Your task to perform on an android device: open wifi settings Image 0: 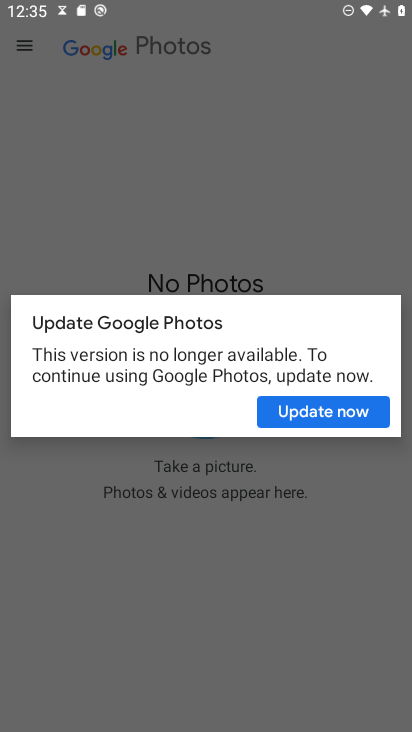
Step 0: click (253, 584)
Your task to perform on an android device: open wifi settings Image 1: 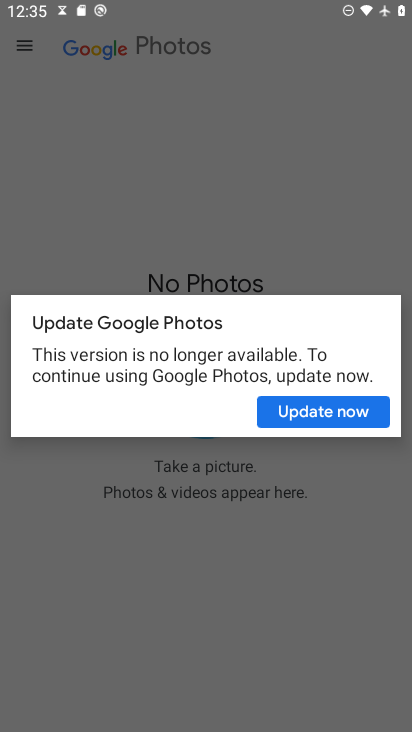
Step 1: press back button
Your task to perform on an android device: open wifi settings Image 2: 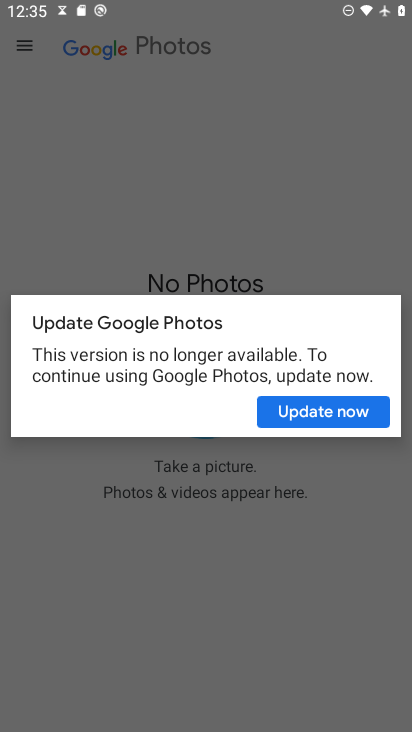
Step 2: press back button
Your task to perform on an android device: open wifi settings Image 3: 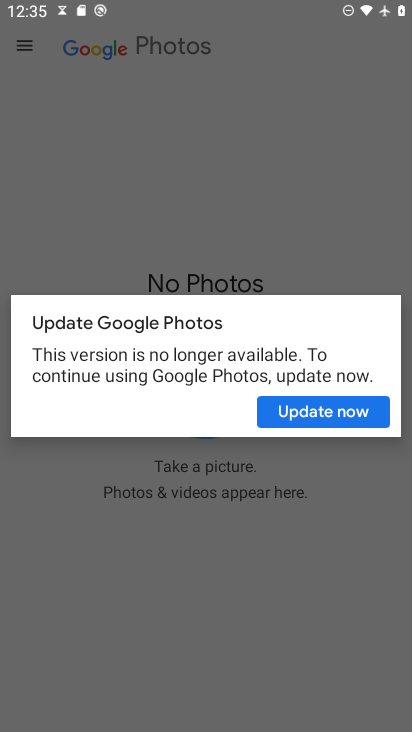
Step 3: press back button
Your task to perform on an android device: open wifi settings Image 4: 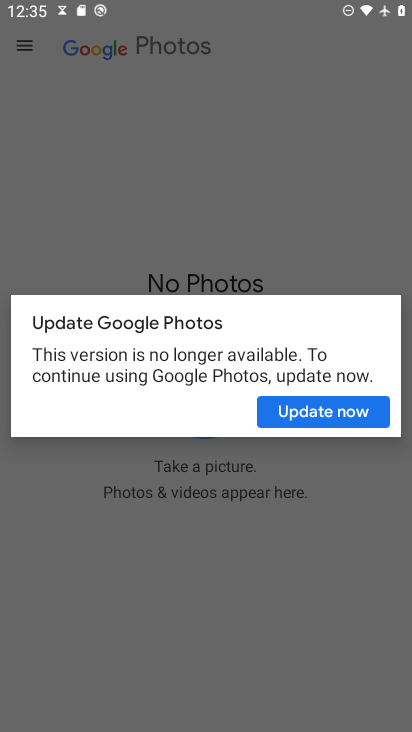
Step 4: press home button
Your task to perform on an android device: open wifi settings Image 5: 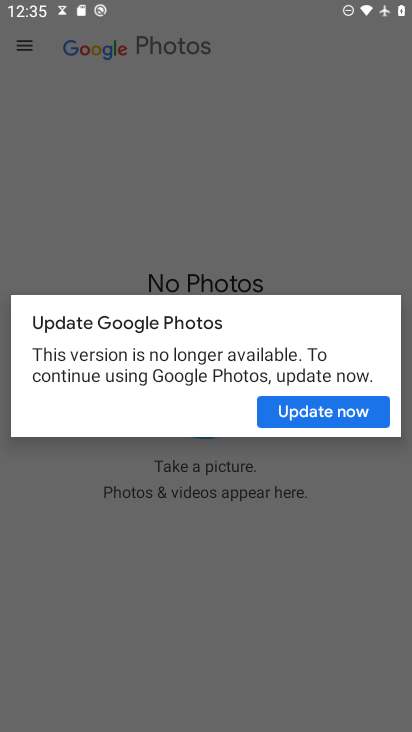
Step 5: press home button
Your task to perform on an android device: open wifi settings Image 6: 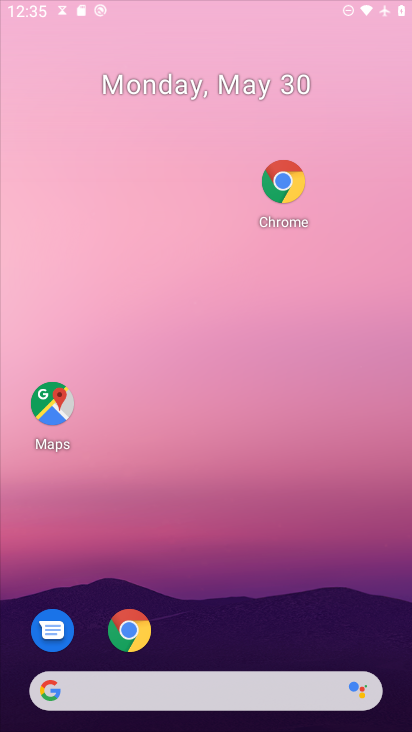
Step 6: press home button
Your task to perform on an android device: open wifi settings Image 7: 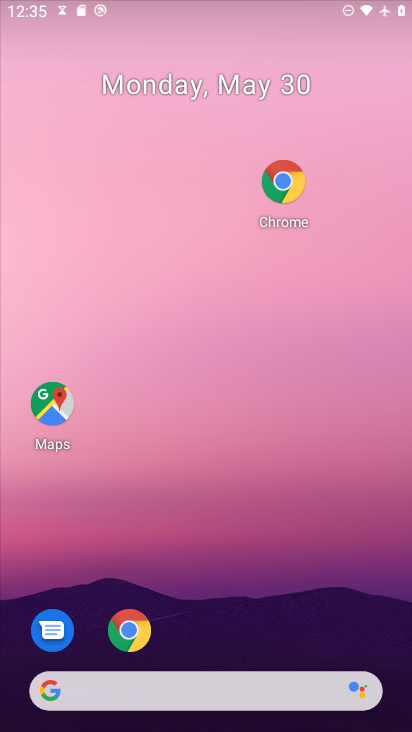
Step 7: press home button
Your task to perform on an android device: open wifi settings Image 8: 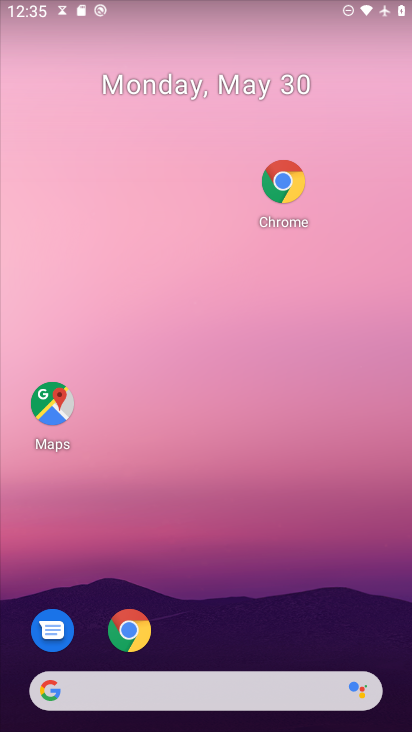
Step 8: drag from (260, 716) to (258, 241)
Your task to perform on an android device: open wifi settings Image 9: 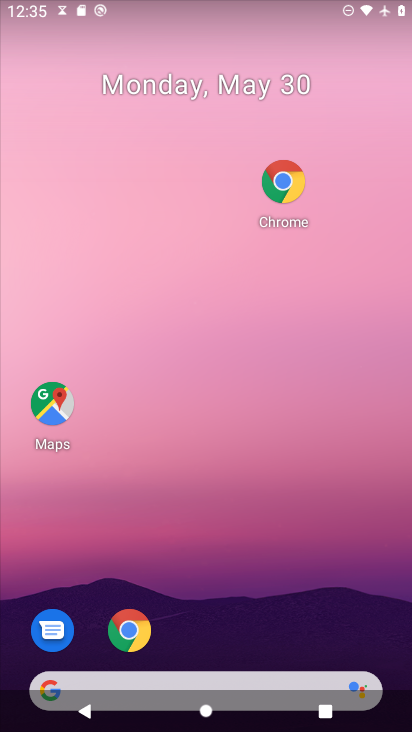
Step 9: drag from (237, 564) to (221, 255)
Your task to perform on an android device: open wifi settings Image 10: 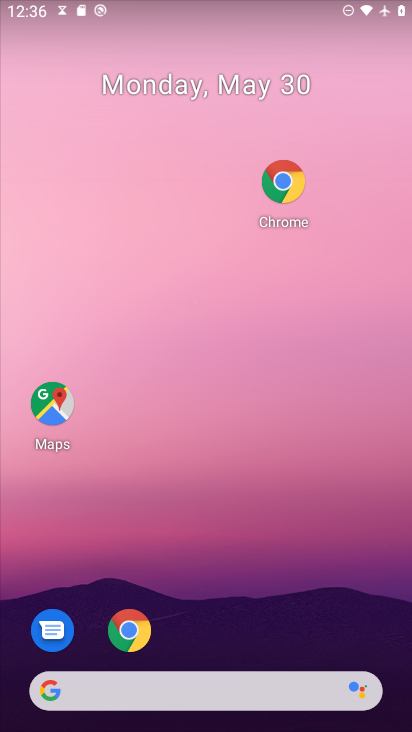
Step 10: drag from (259, 585) to (257, 414)
Your task to perform on an android device: open wifi settings Image 11: 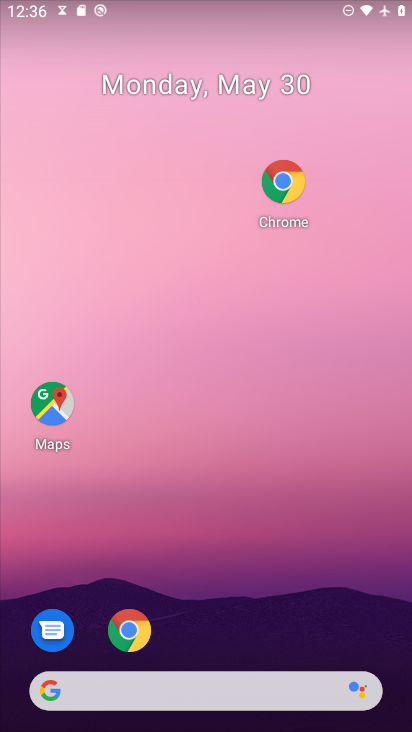
Step 11: drag from (267, 522) to (242, 321)
Your task to perform on an android device: open wifi settings Image 12: 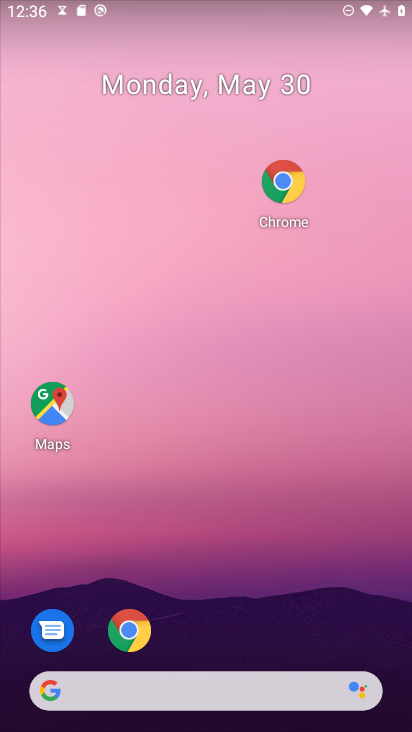
Step 12: drag from (299, 671) to (277, 265)
Your task to perform on an android device: open wifi settings Image 13: 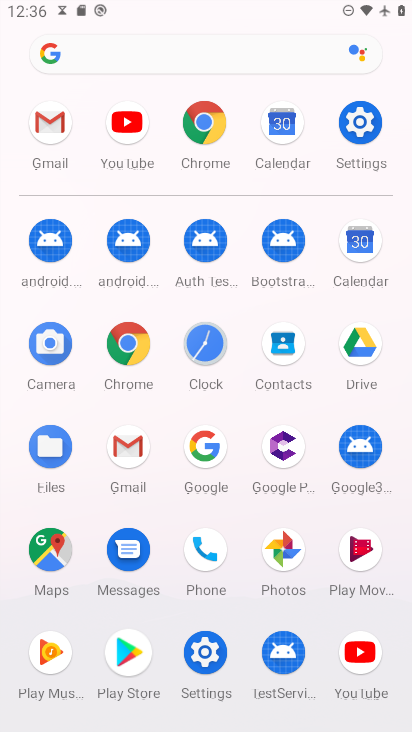
Step 13: drag from (275, 654) to (242, 245)
Your task to perform on an android device: open wifi settings Image 14: 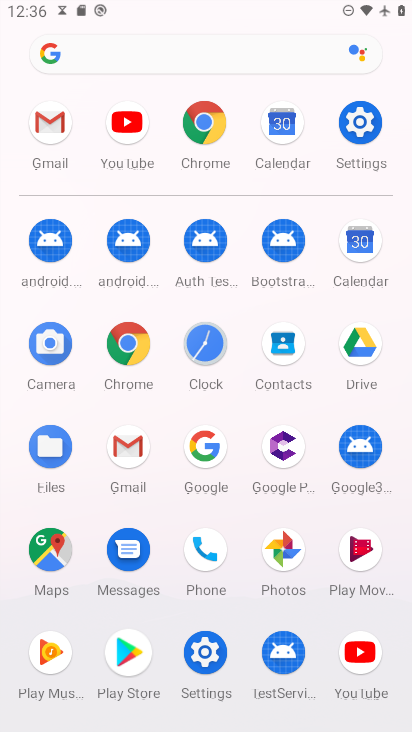
Step 14: click (208, 647)
Your task to perform on an android device: open wifi settings Image 15: 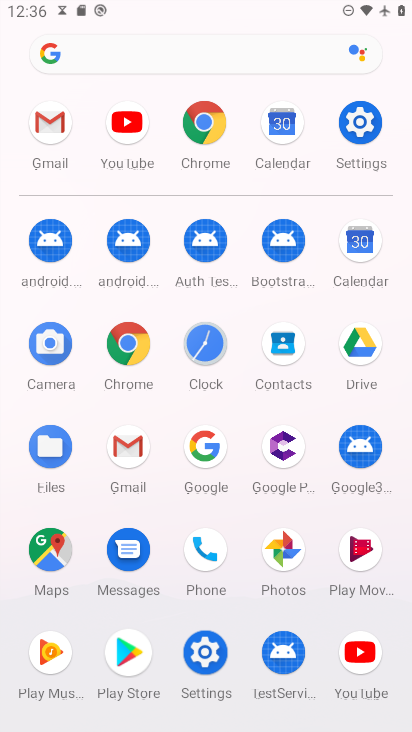
Step 15: click (213, 637)
Your task to perform on an android device: open wifi settings Image 16: 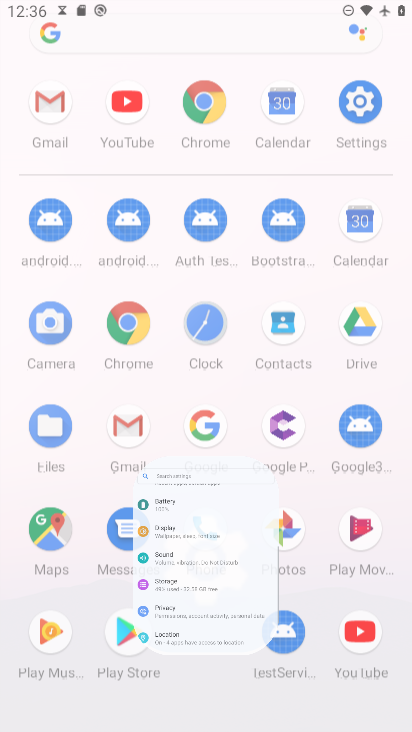
Step 16: click (220, 629)
Your task to perform on an android device: open wifi settings Image 17: 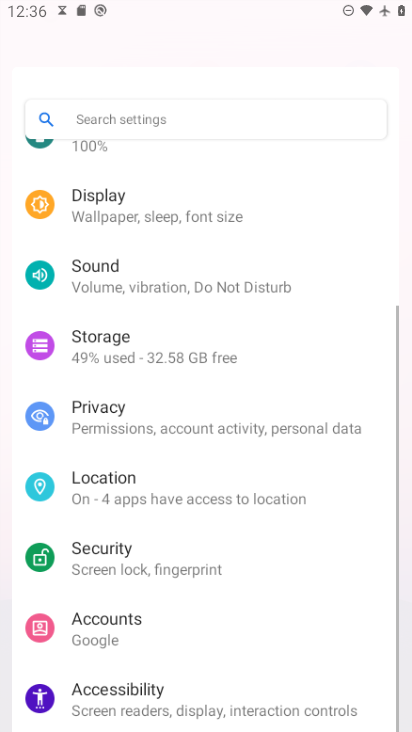
Step 17: click (221, 628)
Your task to perform on an android device: open wifi settings Image 18: 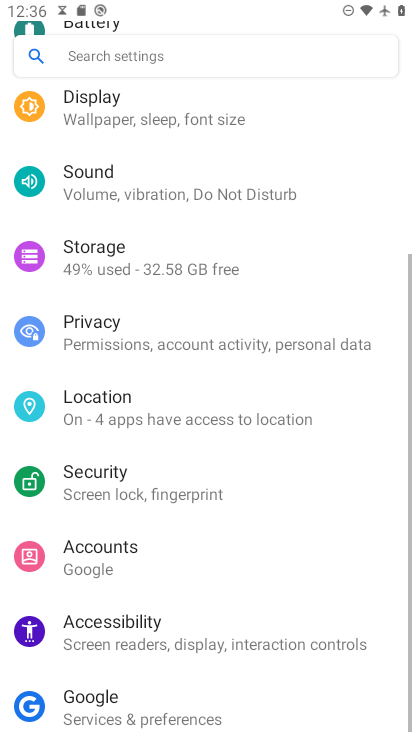
Step 18: click (221, 628)
Your task to perform on an android device: open wifi settings Image 19: 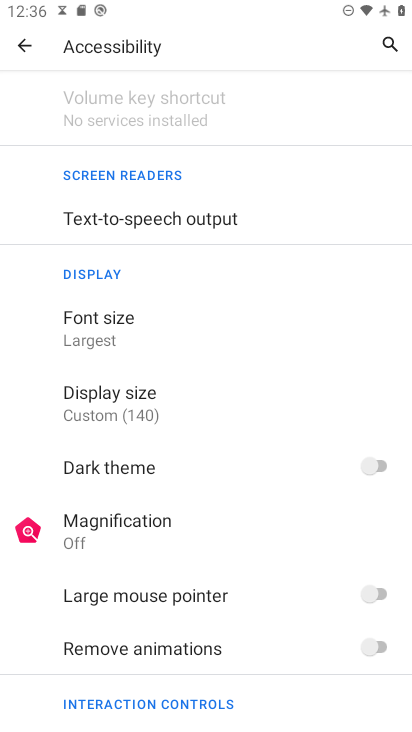
Step 19: click (18, 48)
Your task to perform on an android device: open wifi settings Image 20: 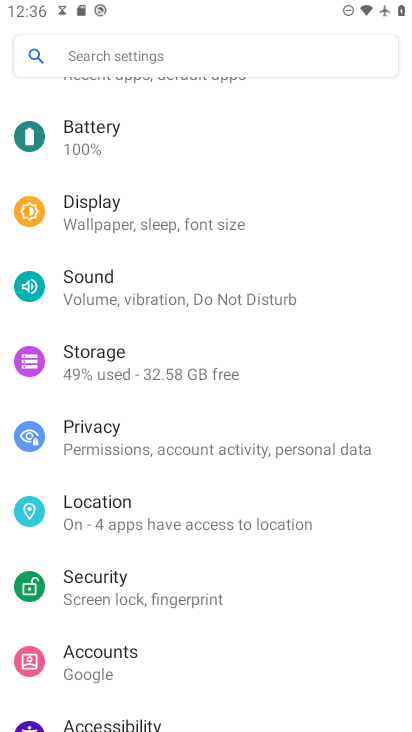
Step 20: drag from (138, 549) to (112, 208)
Your task to perform on an android device: open wifi settings Image 21: 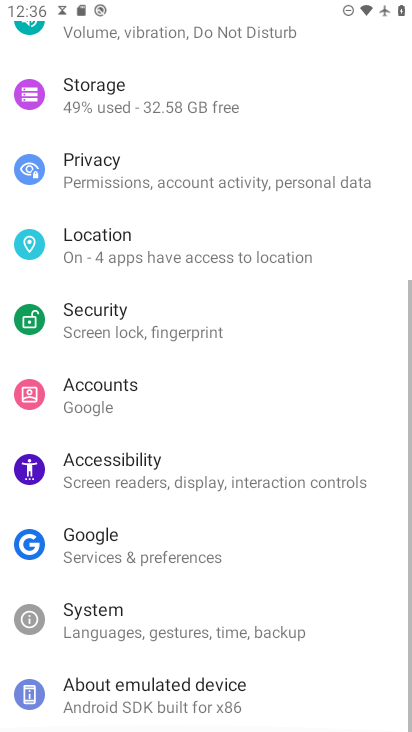
Step 21: drag from (140, 581) to (133, 255)
Your task to perform on an android device: open wifi settings Image 22: 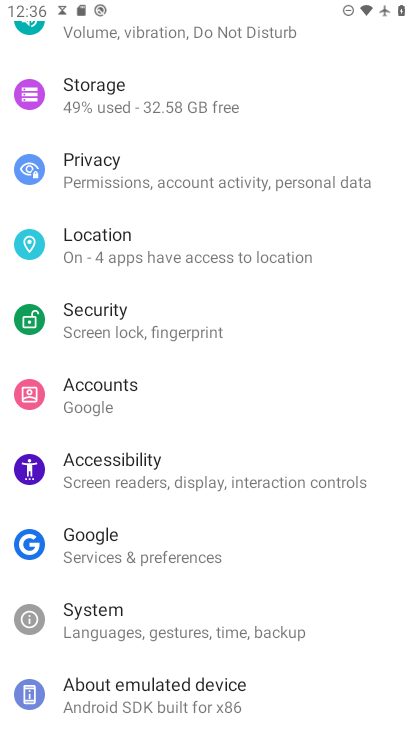
Step 22: drag from (110, 159) to (162, 541)
Your task to perform on an android device: open wifi settings Image 23: 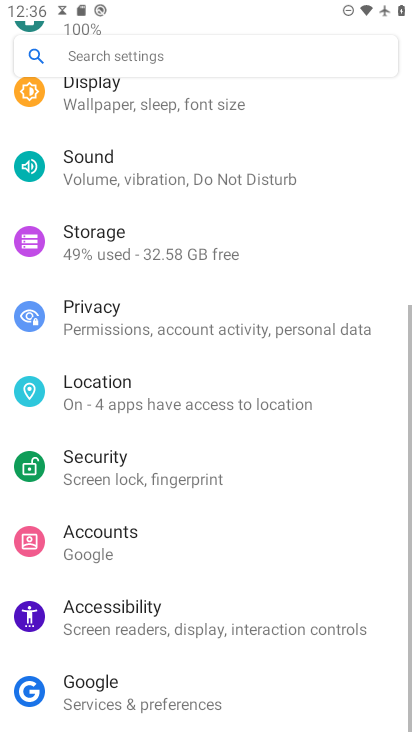
Step 23: drag from (153, 257) to (206, 545)
Your task to perform on an android device: open wifi settings Image 24: 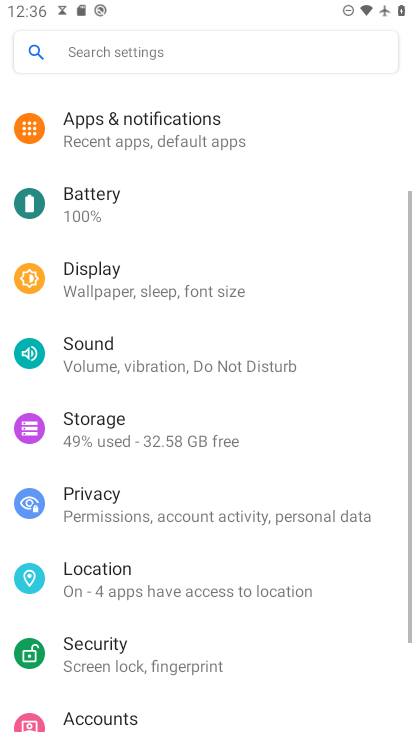
Step 24: drag from (193, 191) to (194, 516)
Your task to perform on an android device: open wifi settings Image 25: 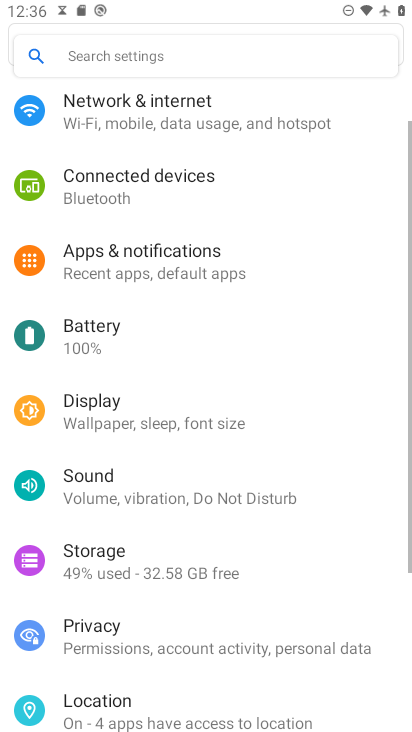
Step 25: drag from (194, 272) to (196, 547)
Your task to perform on an android device: open wifi settings Image 26: 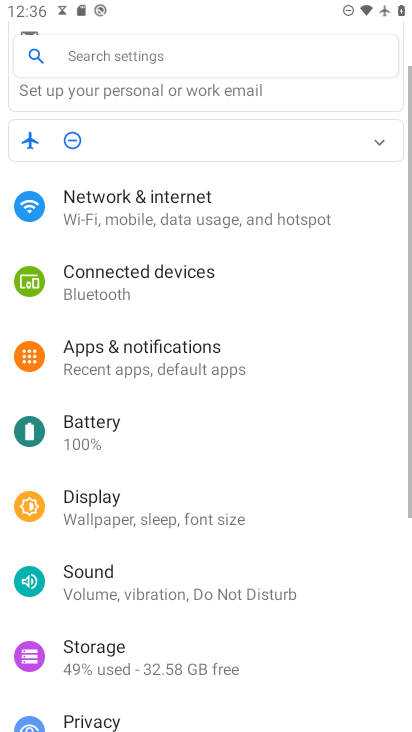
Step 26: drag from (176, 219) to (186, 478)
Your task to perform on an android device: open wifi settings Image 27: 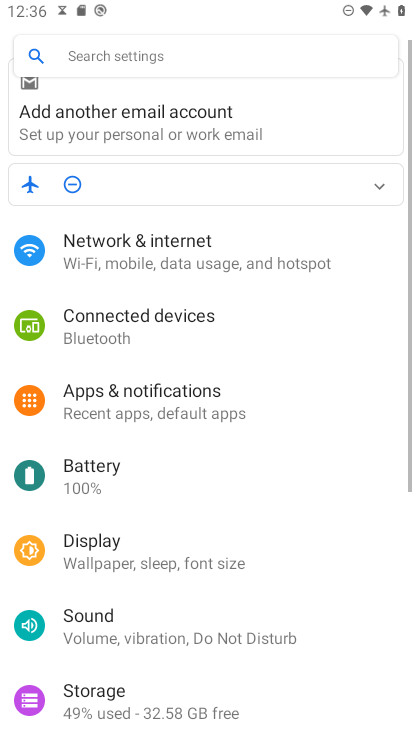
Step 27: drag from (195, 245) to (196, 570)
Your task to perform on an android device: open wifi settings Image 28: 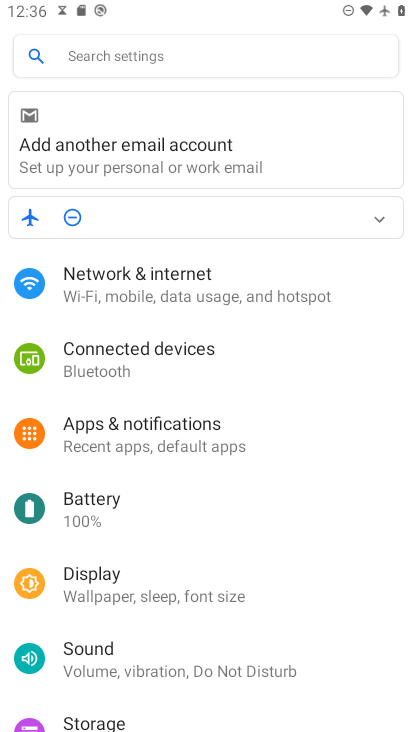
Step 28: click (188, 287)
Your task to perform on an android device: open wifi settings Image 29: 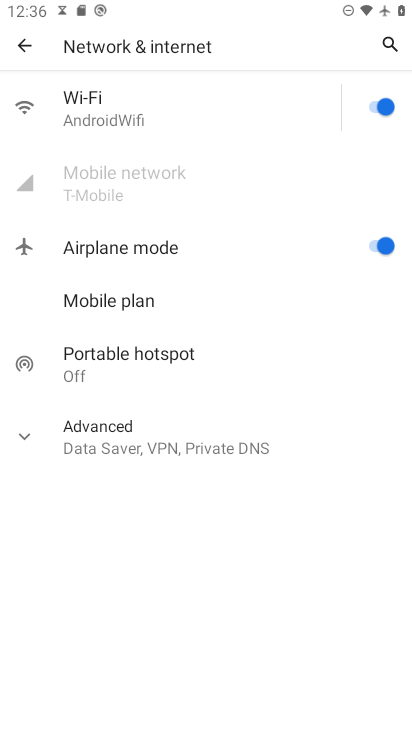
Step 29: task complete